Your task to perform on an android device: turn off smart reply in the gmail app Image 0: 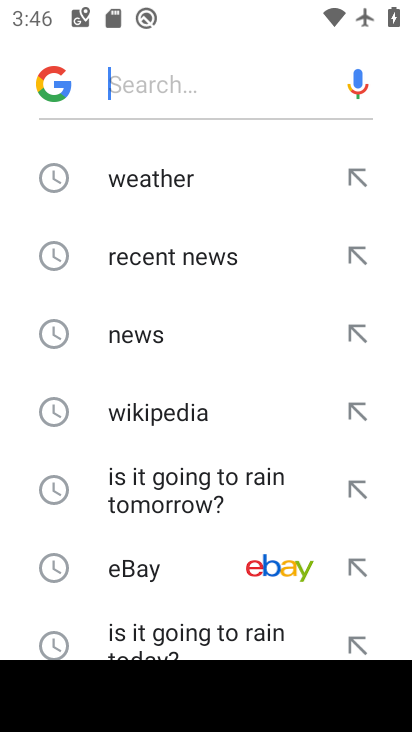
Step 0: press home button
Your task to perform on an android device: turn off smart reply in the gmail app Image 1: 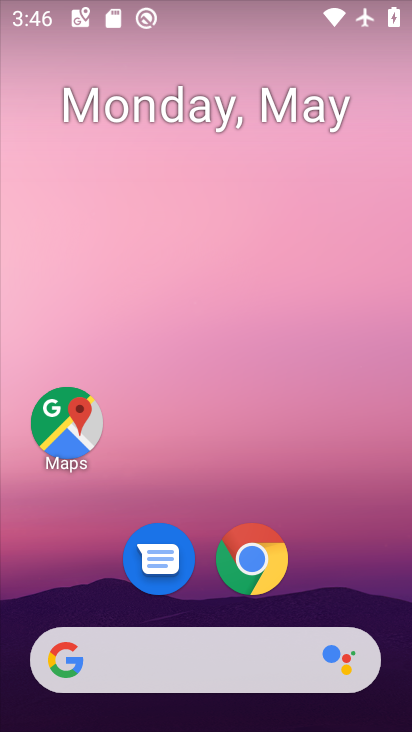
Step 1: drag from (230, 608) to (263, 87)
Your task to perform on an android device: turn off smart reply in the gmail app Image 2: 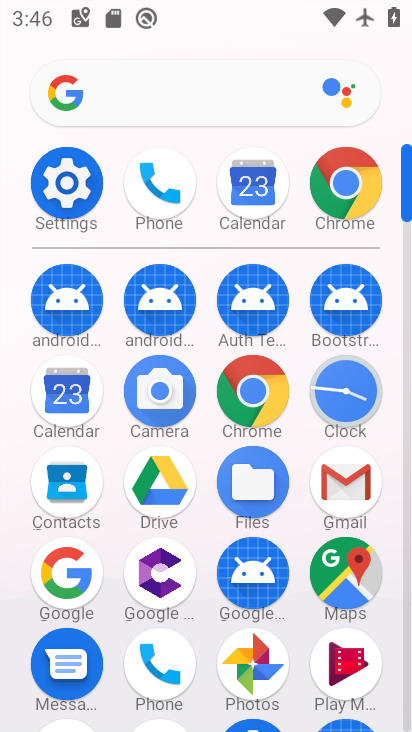
Step 2: click (342, 495)
Your task to perform on an android device: turn off smart reply in the gmail app Image 3: 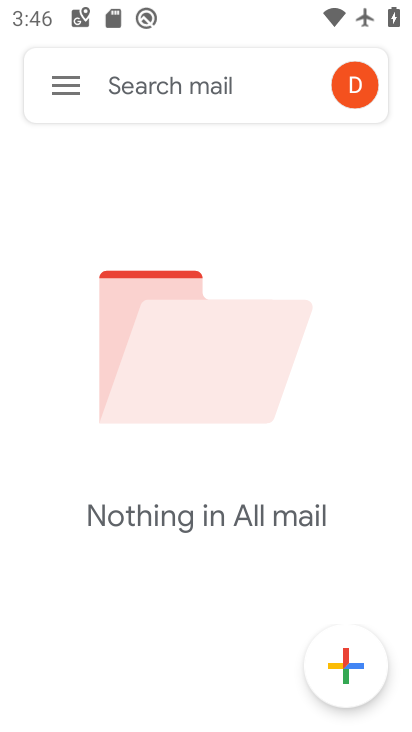
Step 3: click (63, 92)
Your task to perform on an android device: turn off smart reply in the gmail app Image 4: 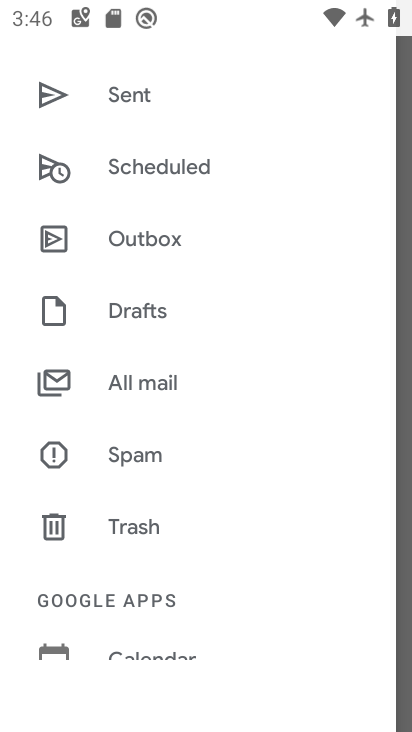
Step 4: click (145, 279)
Your task to perform on an android device: turn off smart reply in the gmail app Image 5: 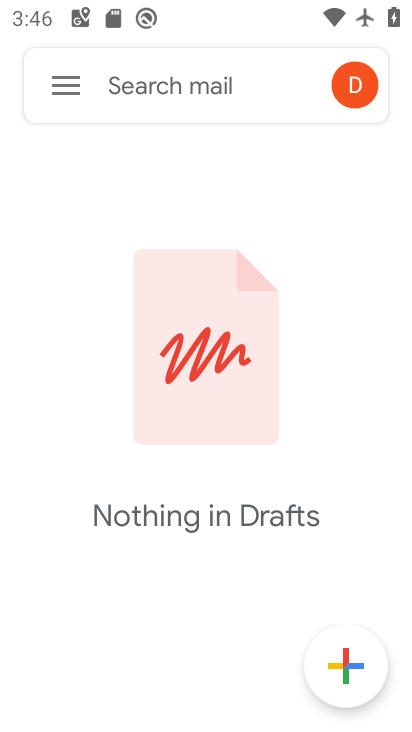
Step 5: click (63, 81)
Your task to perform on an android device: turn off smart reply in the gmail app Image 6: 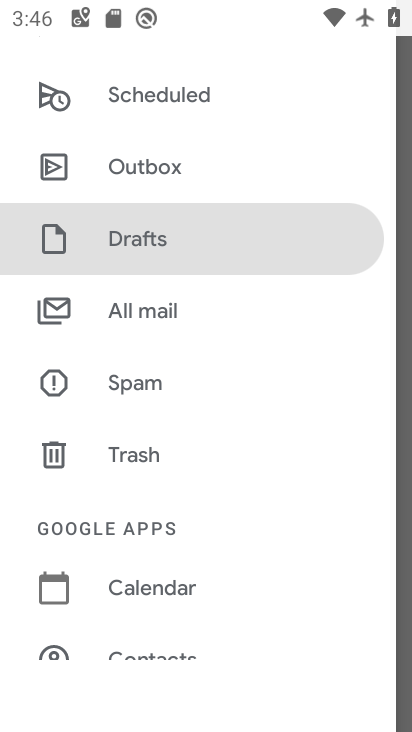
Step 6: drag from (137, 587) to (152, 289)
Your task to perform on an android device: turn off smart reply in the gmail app Image 7: 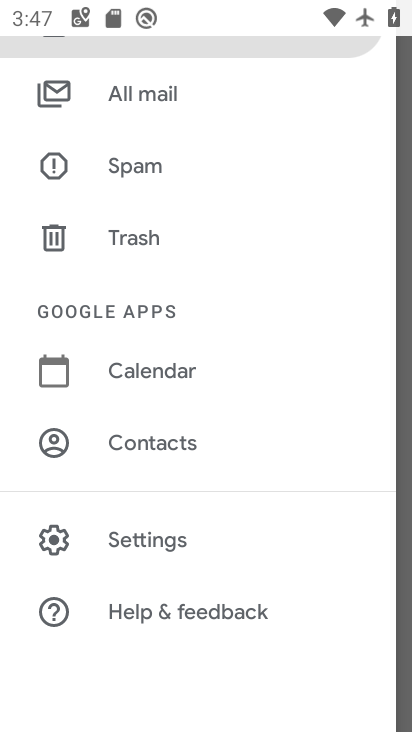
Step 7: click (136, 550)
Your task to perform on an android device: turn off smart reply in the gmail app Image 8: 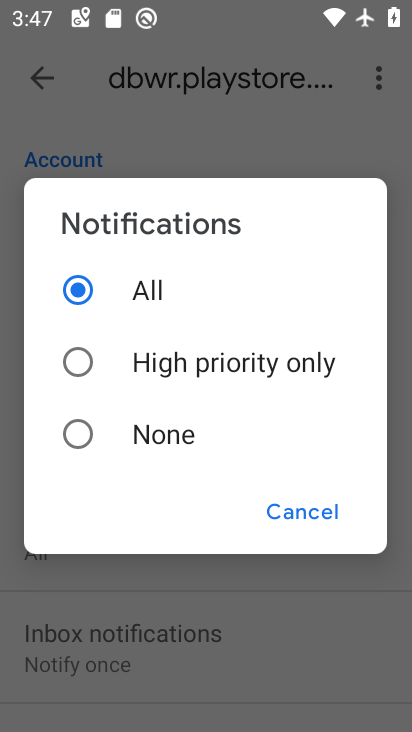
Step 8: click (319, 508)
Your task to perform on an android device: turn off smart reply in the gmail app Image 9: 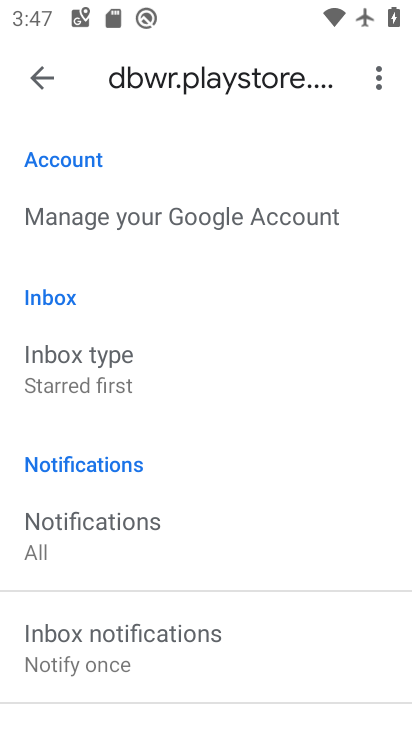
Step 9: drag from (99, 671) to (134, 354)
Your task to perform on an android device: turn off smart reply in the gmail app Image 10: 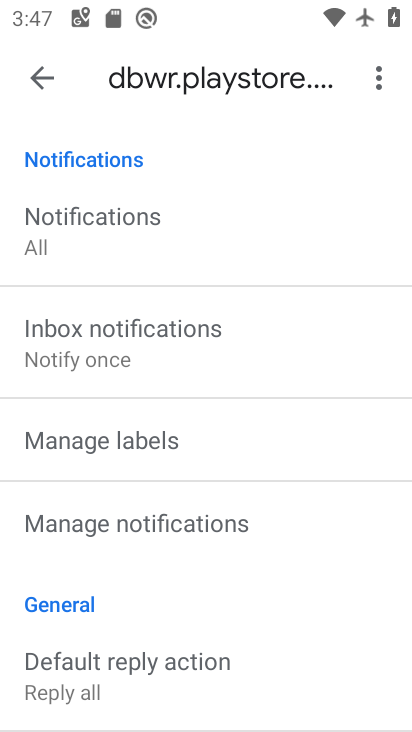
Step 10: drag from (106, 631) to (166, 351)
Your task to perform on an android device: turn off smart reply in the gmail app Image 11: 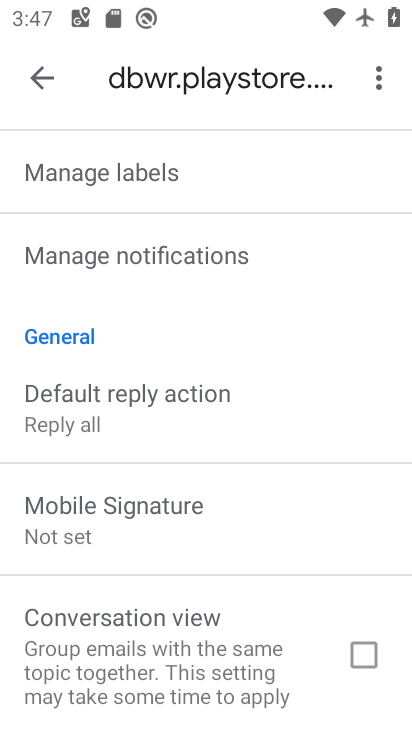
Step 11: drag from (165, 633) to (213, 297)
Your task to perform on an android device: turn off smart reply in the gmail app Image 12: 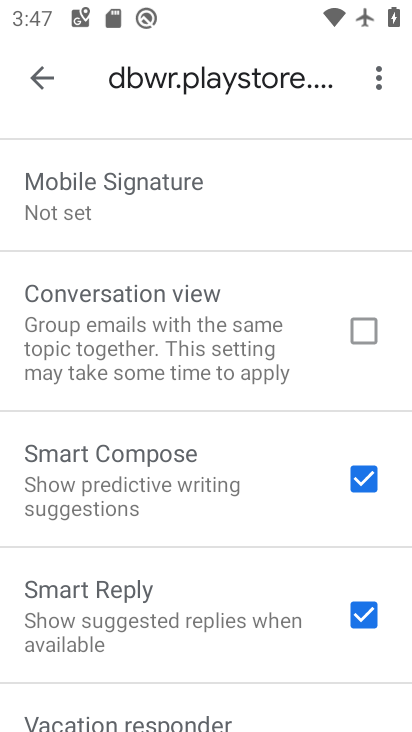
Step 12: click (368, 626)
Your task to perform on an android device: turn off smart reply in the gmail app Image 13: 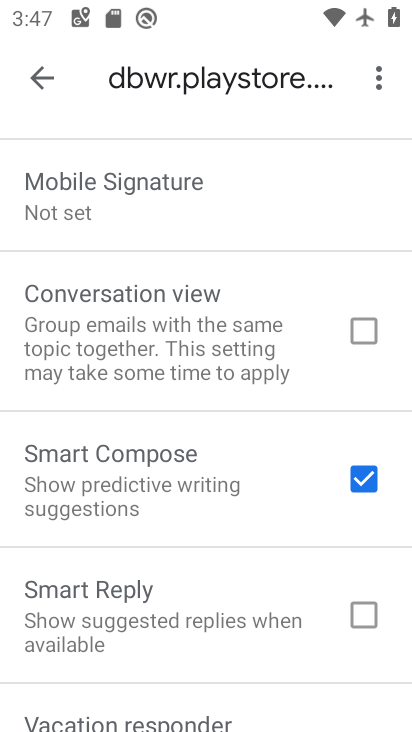
Step 13: task complete